Your task to perform on an android device: turn vacation reply on in the gmail app Image 0: 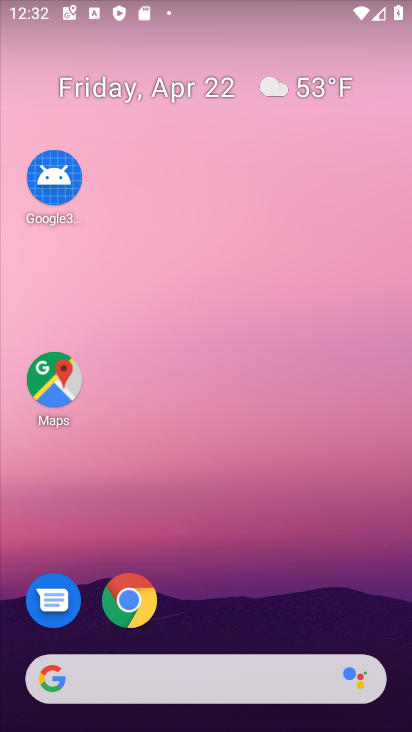
Step 0: drag from (217, 623) to (148, 108)
Your task to perform on an android device: turn vacation reply on in the gmail app Image 1: 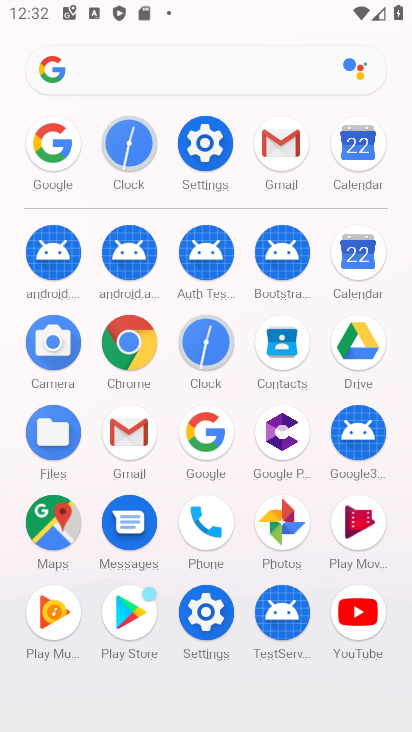
Step 1: click (275, 148)
Your task to perform on an android device: turn vacation reply on in the gmail app Image 2: 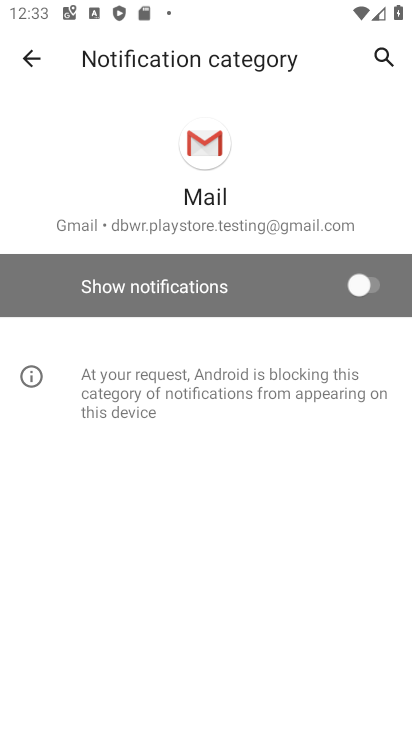
Step 2: click (29, 57)
Your task to perform on an android device: turn vacation reply on in the gmail app Image 3: 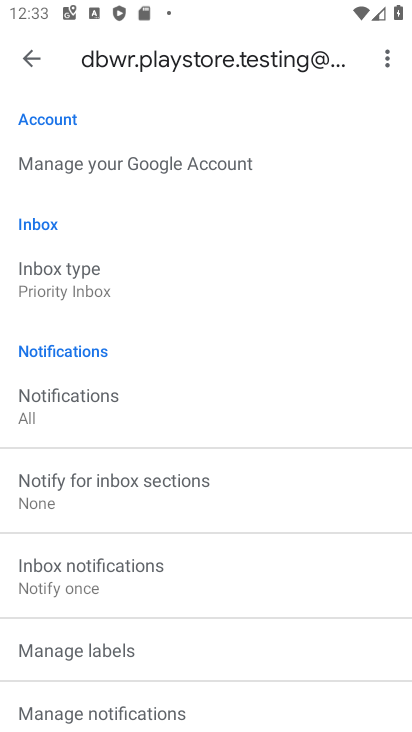
Step 3: drag from (196, 603) to (221, 79)
Your task to perform on an android device: turn vacation reply on in the gmail app Image 4: 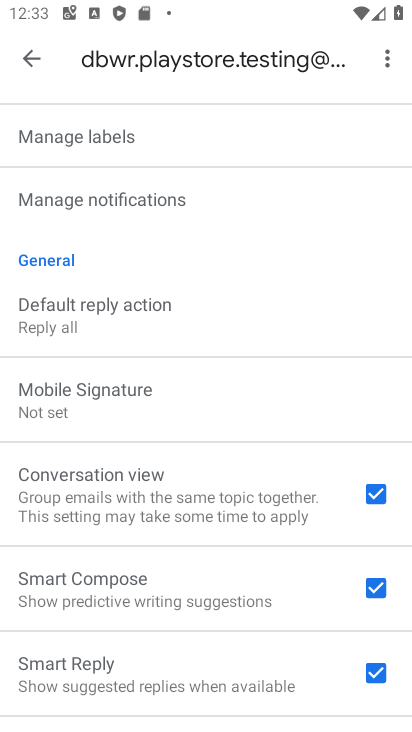
Step 4: drag from (214, 611) to (210, 150)
Your task to perform on an android device: turn vacation reply on in the gmail app Image 5: 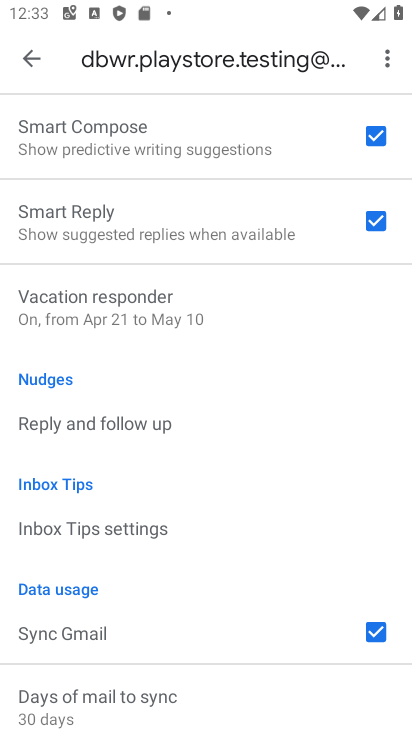
Step 5: click (166, 291)
Your task to perform on an android device: turn vacation reply on in the gmail app Image 6: 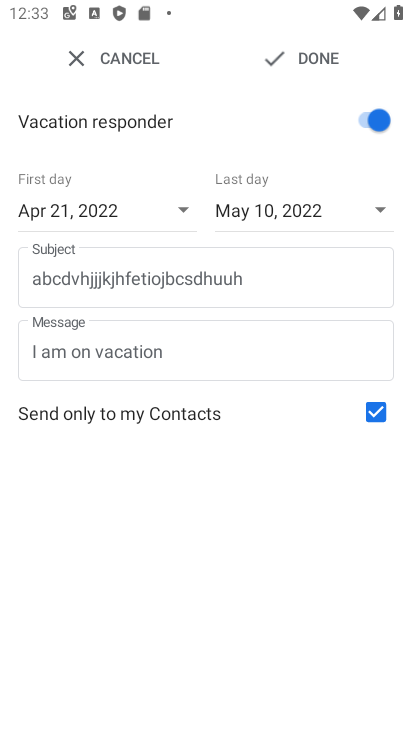
Step 6: click (305, 54)
Your task to perform on an android device: turn vacation reply on in the gmail app Image 7: 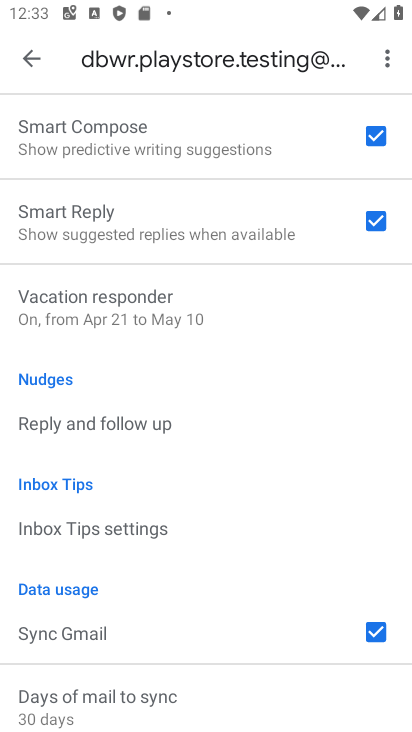
Step 7: task complete